Your task to perform on an android device: Find coffee shops on Maps Image 0: 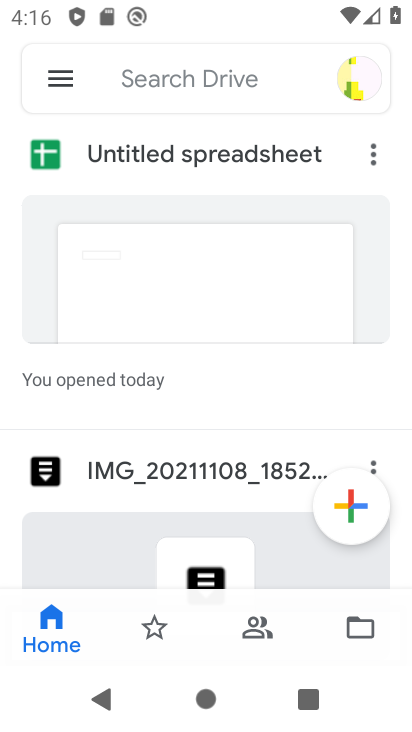
Step 0: press home button
Your task to perform on an android device: Find coffee shops on Maps Image 1: 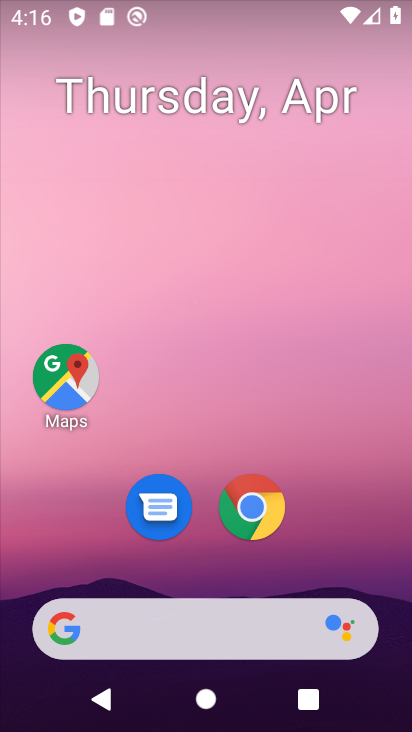
Step 1: drag from (337, 496) to (311, 110)
Your task to perform on an android device: Find coffee shops on Maps Image 2: 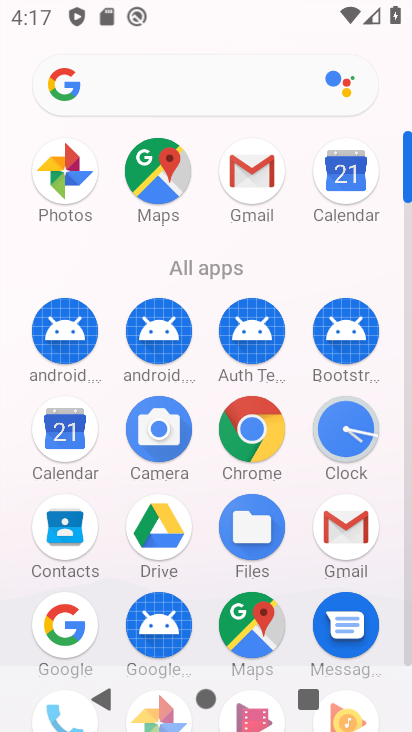
Step 2: click (159, 163)
Your task to perform on an android device: Find coffee shops on Maps Image 3: 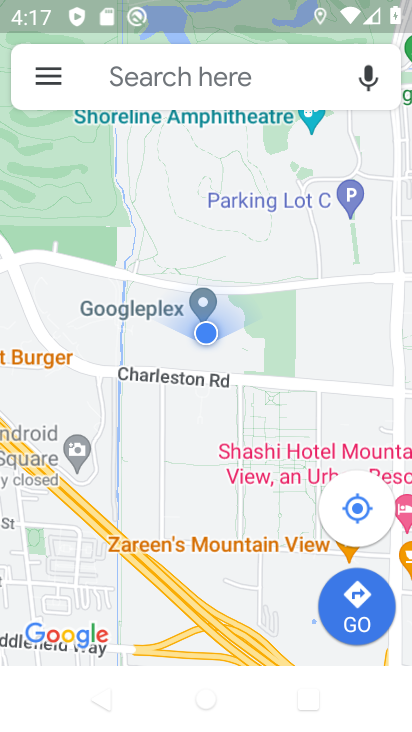
Step 3: click (170, 91)
Your task to perform on an android device: Find coffee shops on Maps Image 4: 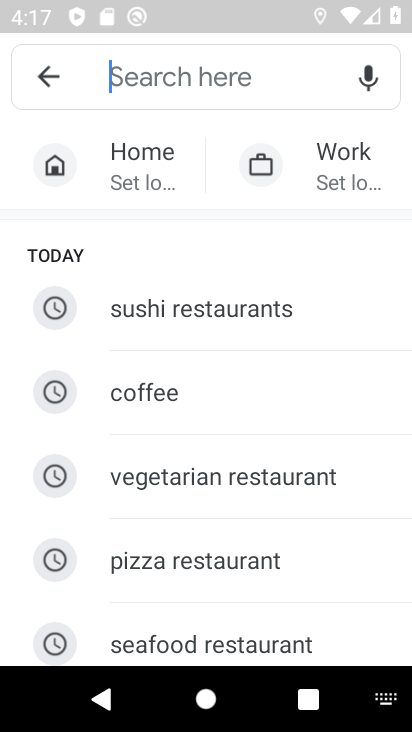
Step 4: click (163, 402)
Your task to perform on an android device: Find coffee shops on Maps Image 5: 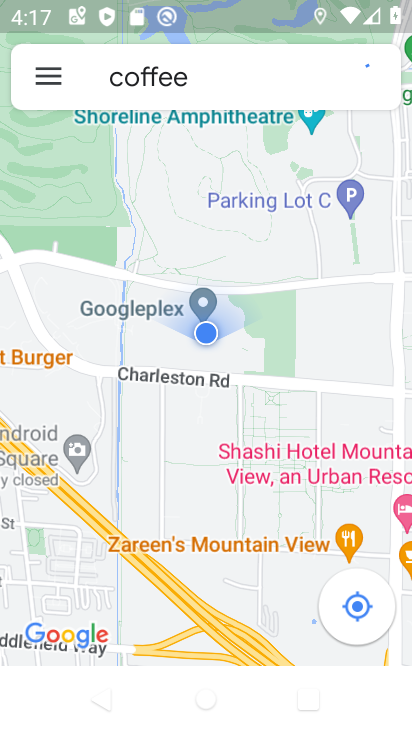
Step 5: task complete